Your task to perform on an android device: choose inbox layout in the gmail app Image 0: 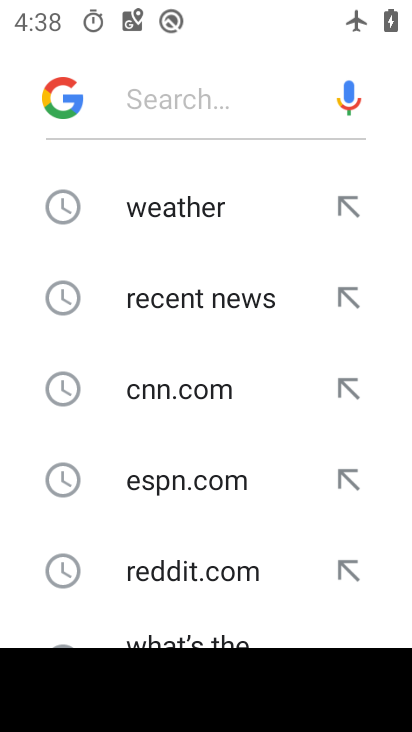
Step 0: press home button
Your task to perform on an android device: choose inbox layout in the gmail app Image 1: 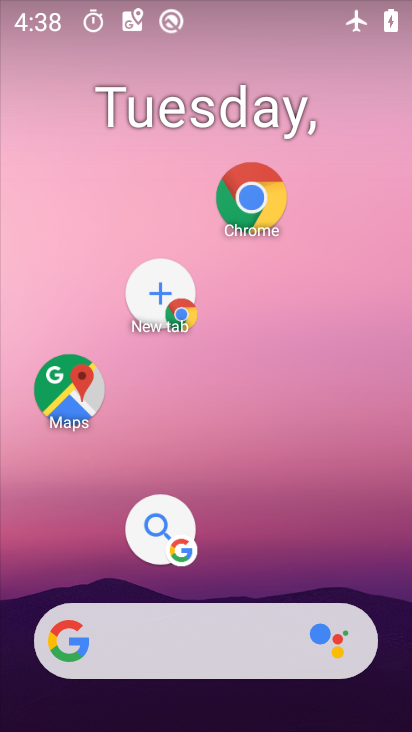
Step 1: drag from (237, 393) to (249, 316)
Your task to perform on an android device: choose inbox layout in the gmail app Image 2: 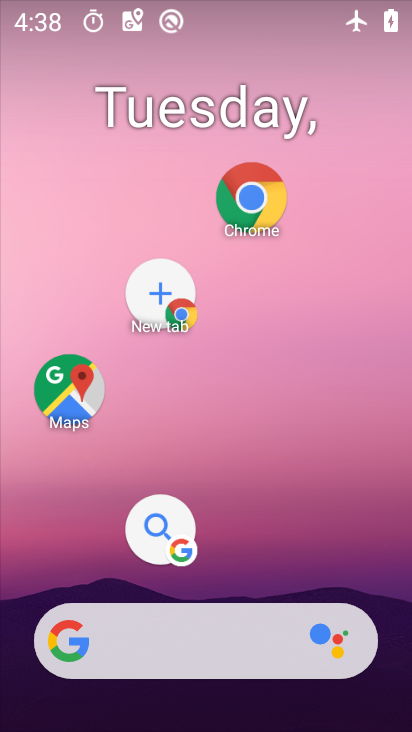
Step 2: drag from (185, 603) to (219, 356)
Your task to perform on an android device: choose inbox layout in the gmail app Image 3: 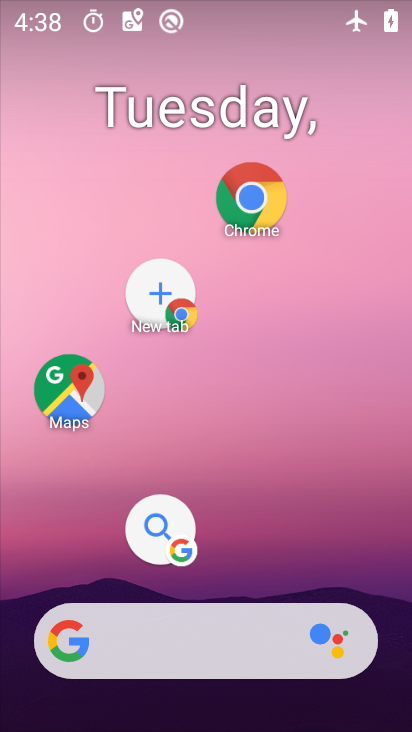
Step 3: drag from (252, 590) to (318, 313)
Your task to perform on an android device: choose inbox layout in the gmail app Image 4: 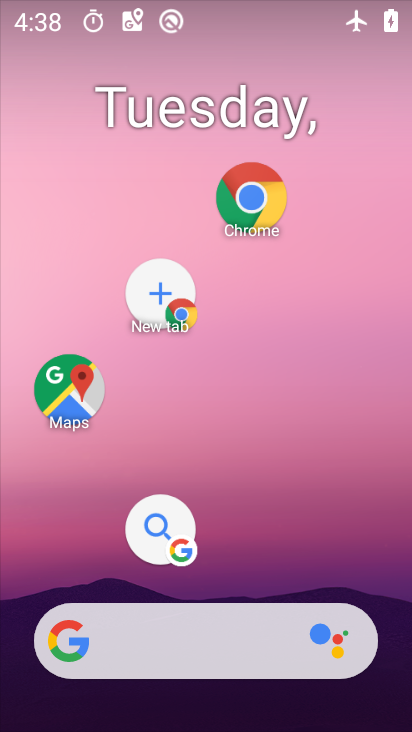
Step 4: drag from (231, 605) to (256, 324)
Your task to perform on an android device: choose inbox layout in the gmail app Image 5: 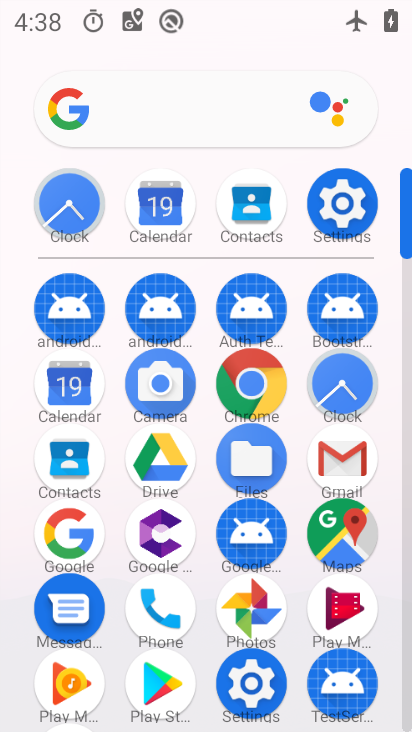
Step 5: click (351, 465)
Your task to perform on an android device: choose inbox layout in the gmail app Image 6: 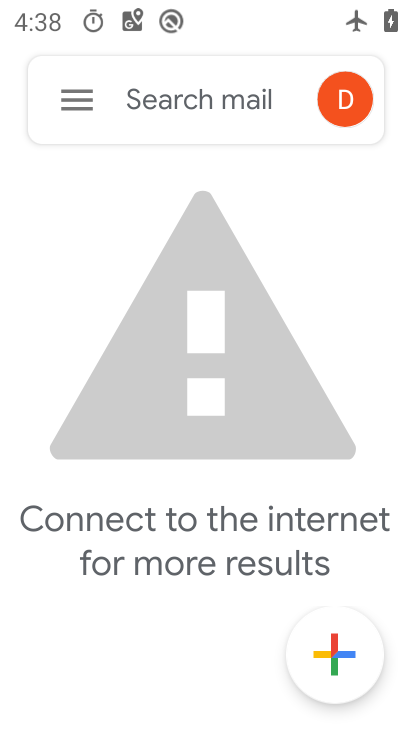
Step 6: click (69, 98)
Your task to perform on an android device: choose inbox layout in the gmail app Image 7: 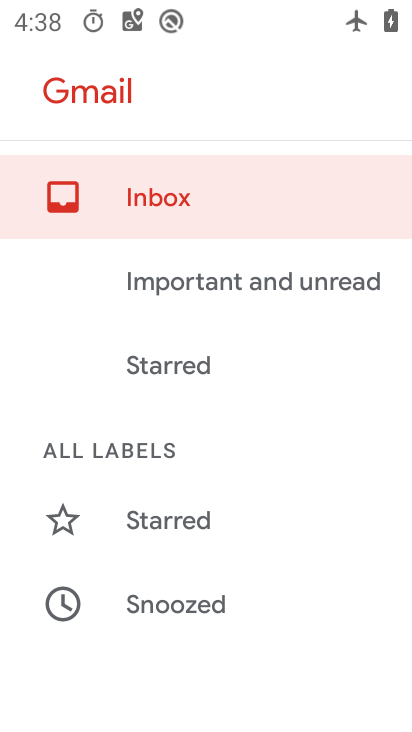
Step 7: drag from (183, 572) to (210, 340)
Your task to perform on an android device: choose inbox layout in the gmail app Image 8: 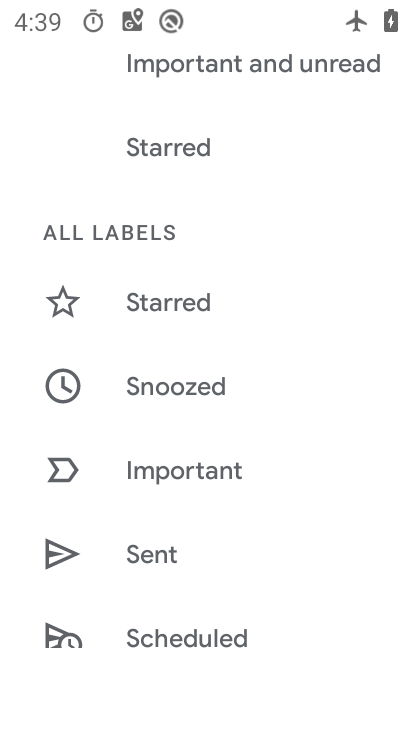
Step 8: drag from (164, 654) to (179, 572)
Your task to perform on an android device: choose inbox layout in the gmail app Image 9: 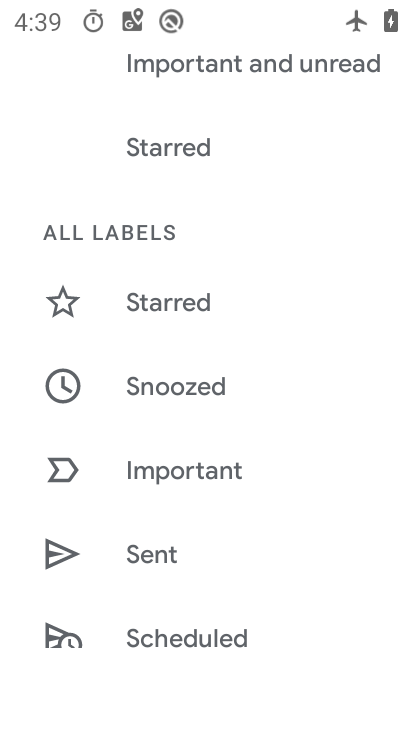
Step 9: drag from (144, 639) to (167, 446)
Your task to perform on an android device: choose inbox layout in the gmail app Image 10: 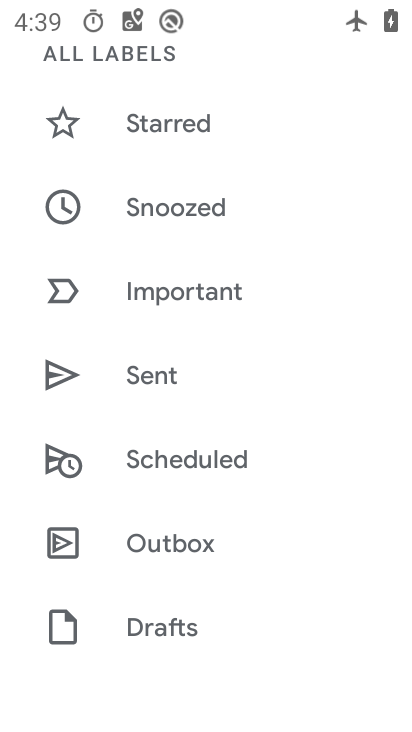
Step 10: drag from (162, 567) to (172, 514)
Your task to perform on an android device: choose inbox layout in the gmail app Image 11: 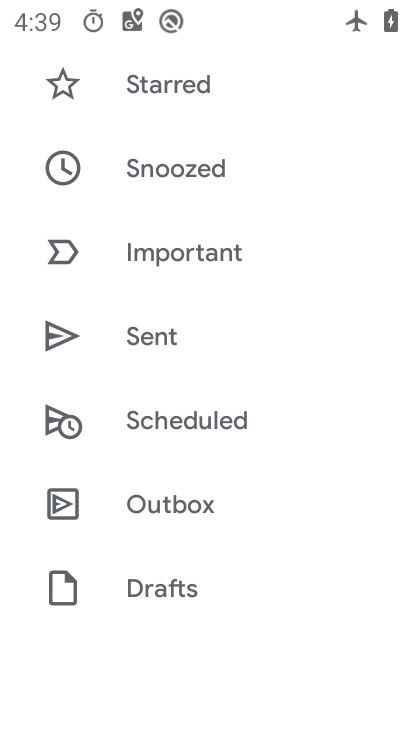
Step 11: drag from (167, 605) to (186, 320)
Your task to perform on an android device: choose inbox layout in the gmail app Image 12: 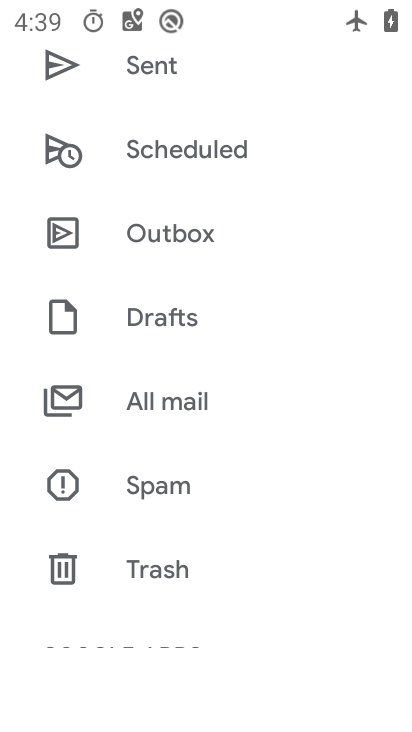
Step 12: drag from (152, 581) to (148, 364)
Your task to perform on an android device: choose inbox layout in the gmail app Image 13: 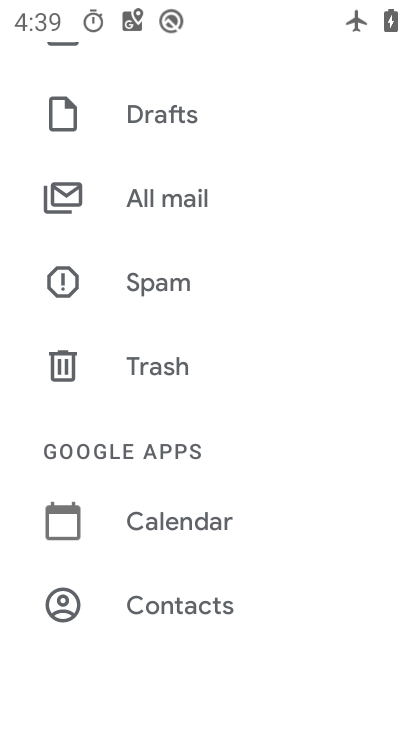
Step 13: drag from (153, 624) to (183, 466)
Your task to perform on an android device: choose inbox layout in the gmail app Image 14: 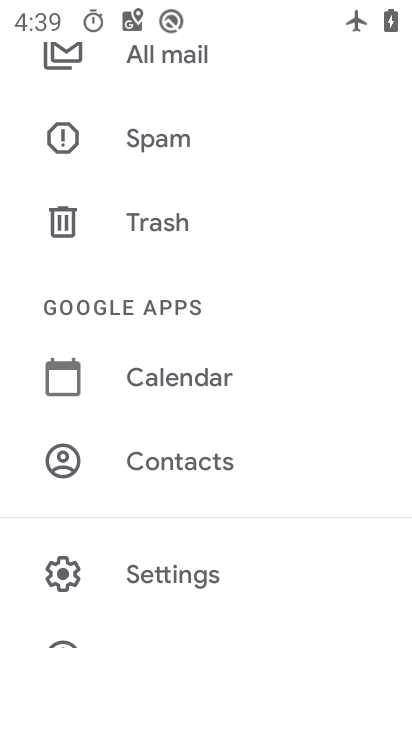
Step 14: click (137, 580)
Your task to perform on an android device: choose inbox layout in the gmail app Image 15: 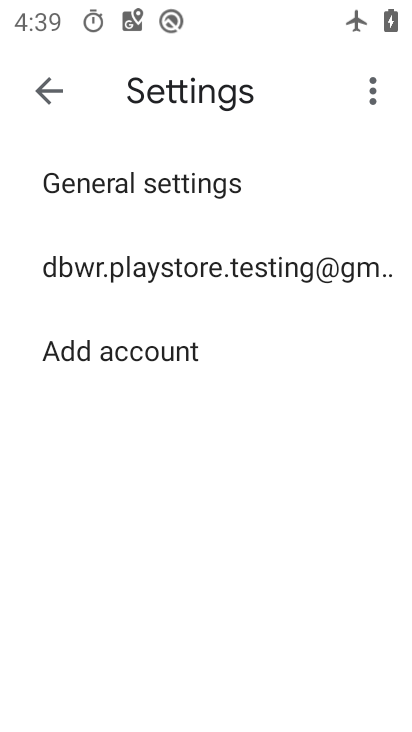
Step 15: click (90, 273)
Your task to perform on an android device: choose inbox layout in the gmail app Image 16: 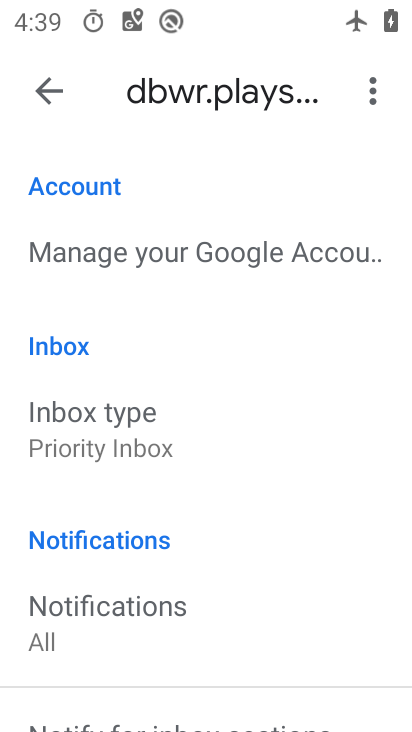
Step 16: task complete